Your task to perform on an android device: Search for sushi restaurants on Maps Image 0: 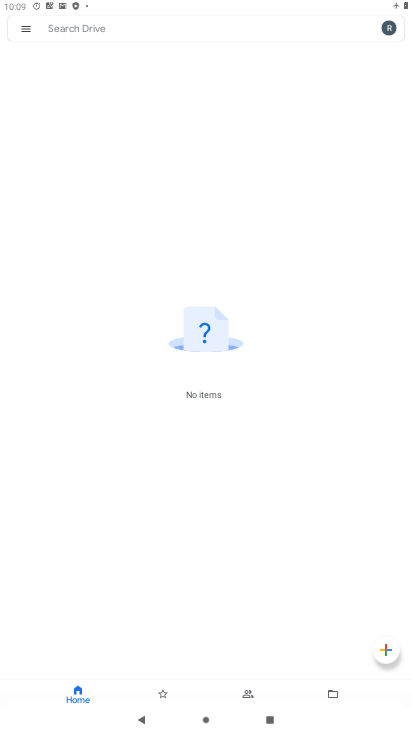
Step 0: press home button
Your task to perform on an android device: Search for sushi restaurants on Maps Image 1: 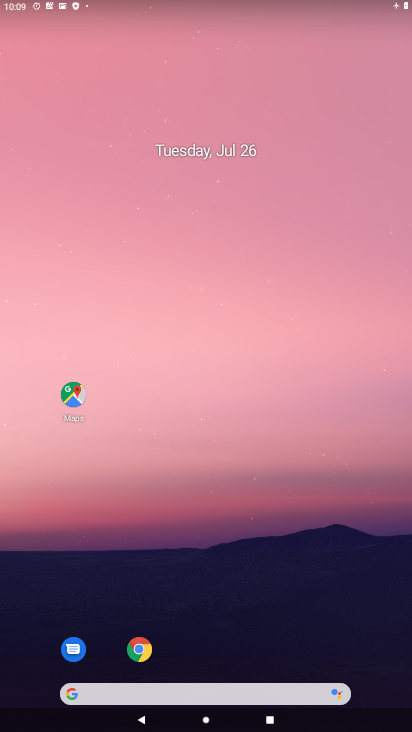
Step 1: drag from (161, 576) to (252, 81)
Your task to perform on an android device: Search for sushi restaurants on Maps Image 2: 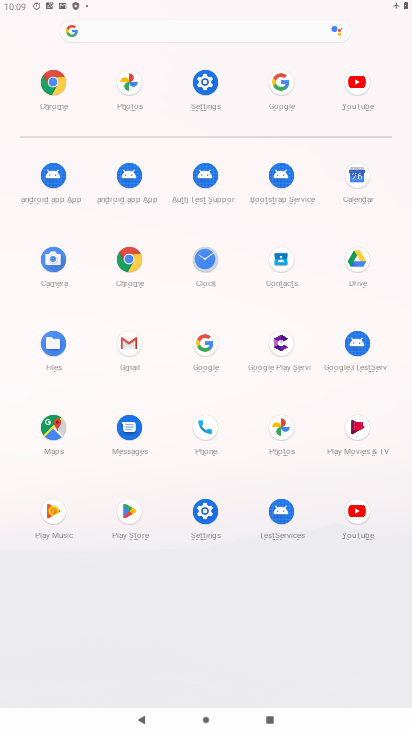
Step 2: click (170, 33)
Your task to perform on an android device: Search for sushi restaurants on Maps Image 3: 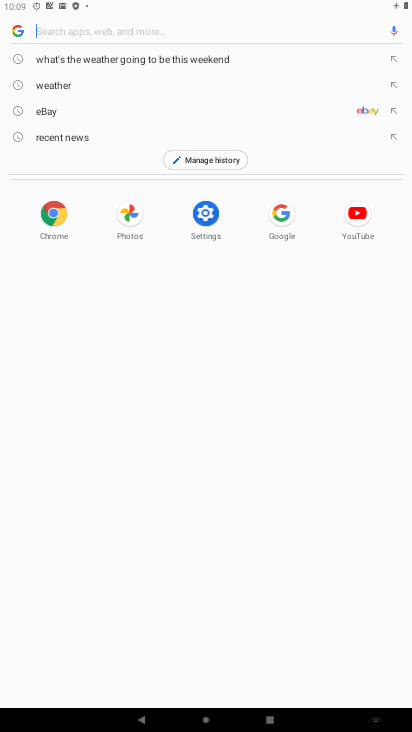
Step 3: press home button
Your task to perform on an android device: Search for sushi restaurants on Maps Image 4: 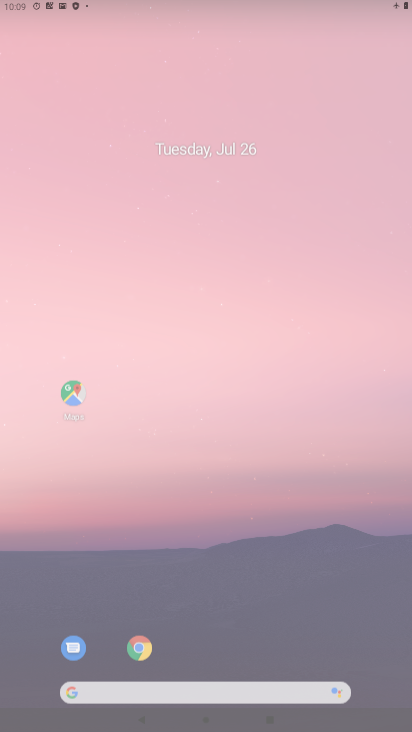
Step 4: drag from (226, 552) to (223, 6)
Your task to perform on an android device: Search for sushi restaurants on Maps Image 5: 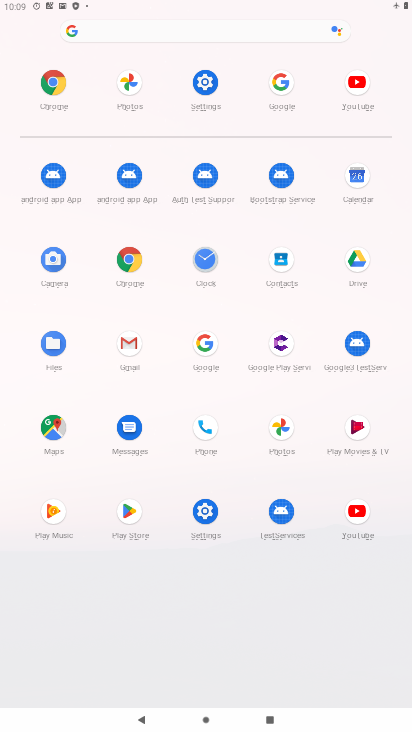
Step 5: click (60, 419)
Your task to perform on an android device: Search for sushi restaurants on Maps Image 6: 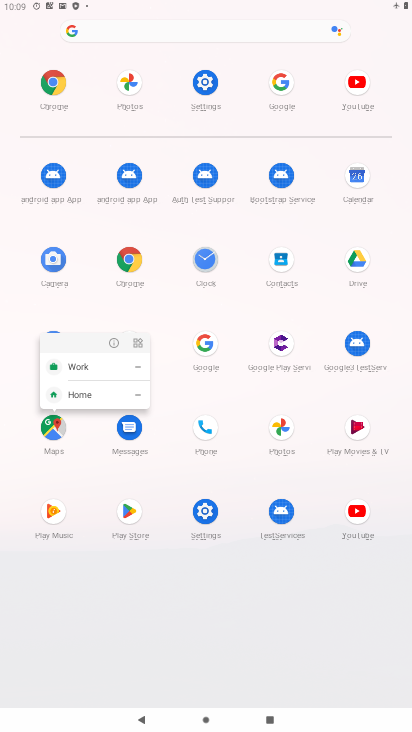
Step 6: click (118, 340)
Your task to perform on an android device: Search for sushi restaurants on Maps Image 7: 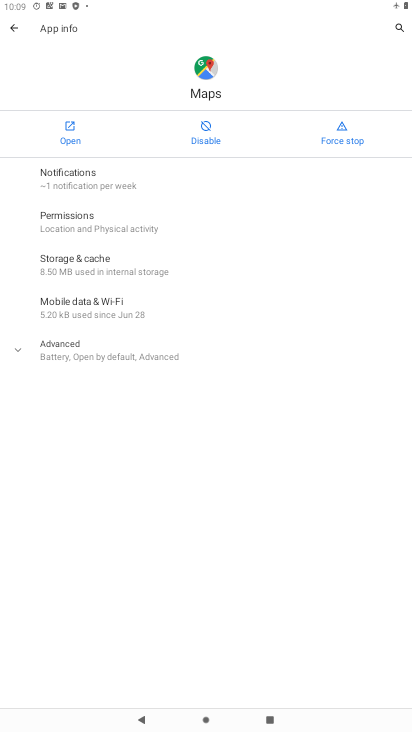
Step 7: click (87, 139)
Your task to perform on an android device: Search for sushi restaurants on Maps Image 8: 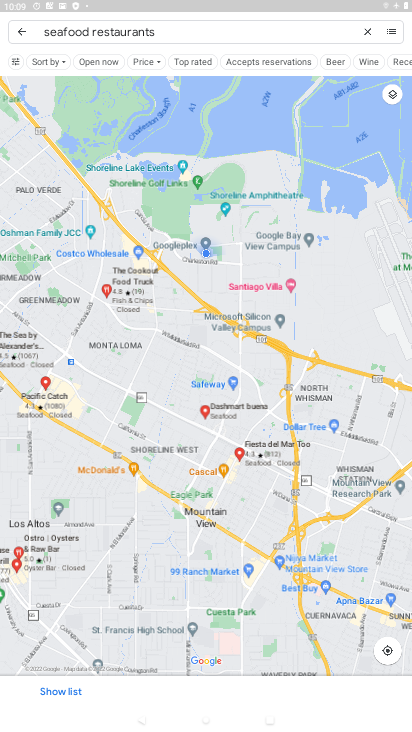
Step 8: click (364, 33)
Your task to perform on an android device: Search for sushi restaurants on Maps Image 9: 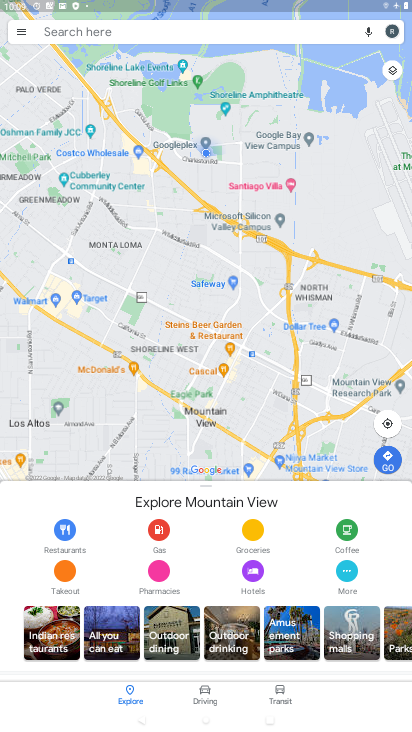
Step 9: click (100, 35)
Your task to perform on an android device: Search for sushi restaurants on Maps Image 10: 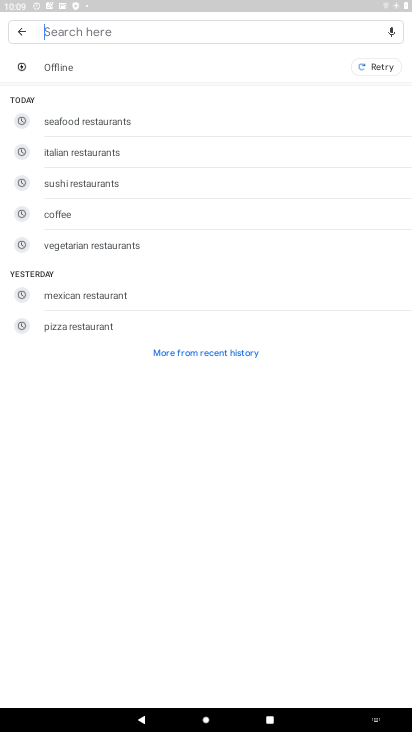
Step 10: click (77, 180)
Your task to perform on an android device: Search for sushi restaurants on Maps Image 11: 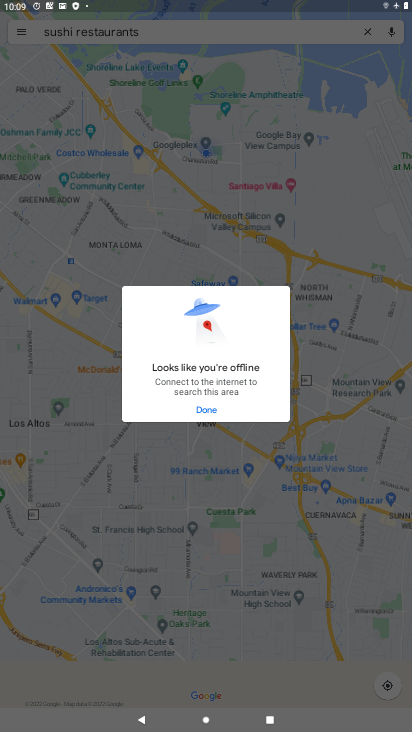
Step 11: task complete